Your task to perform on an android device: turn on the 24-hour format for clock Image 0: 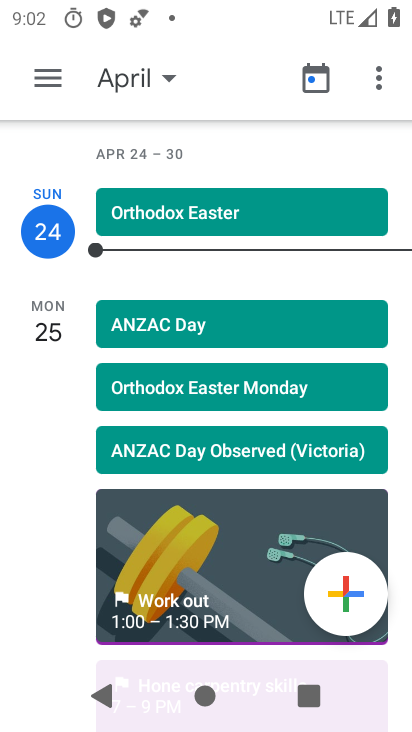
Step 0: press home button
Your task to perform on an android device: turn on the 24-hour format for clock Image 1: 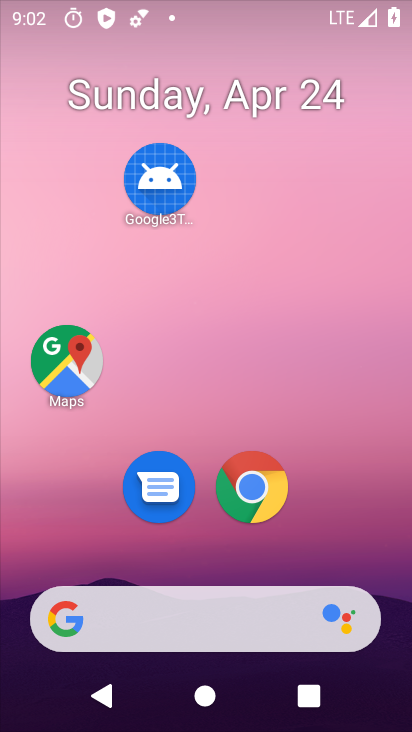
Step 1: drag from (299, 500) to (288, 70)
Your task to perform on an android device: turn on the 24-hour format for clock Image 2: 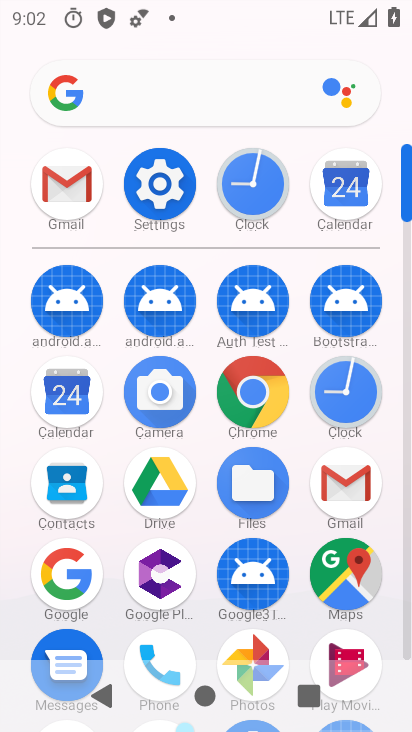
Step 2: click (265, 189)
Your task to perform on an android device: turn on the 24-hour format for clock Image 3: 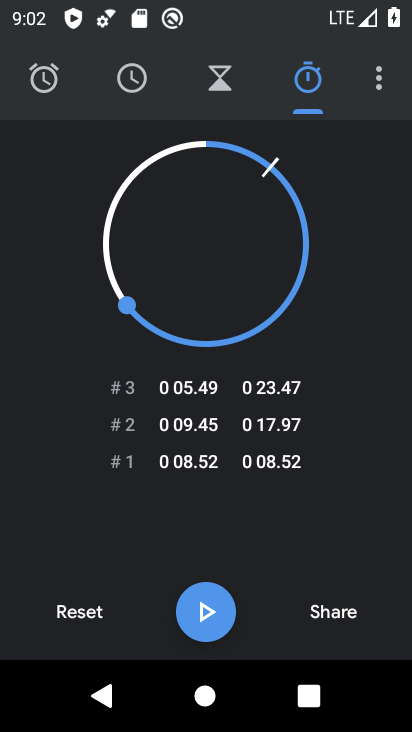
Step 3: click (380, 91)
Your task to perform on an android device: turn on the 24-hour format for clock Image 4: 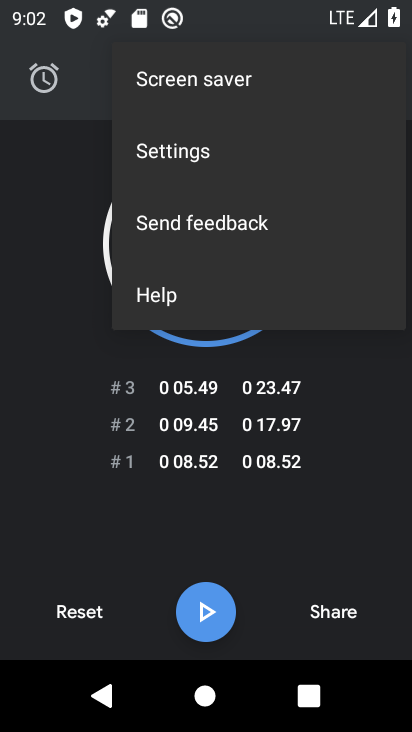
Step 4: click (201, 157)
Your task to perform on an android device: turn on the 24-hour format for clock Image 5: 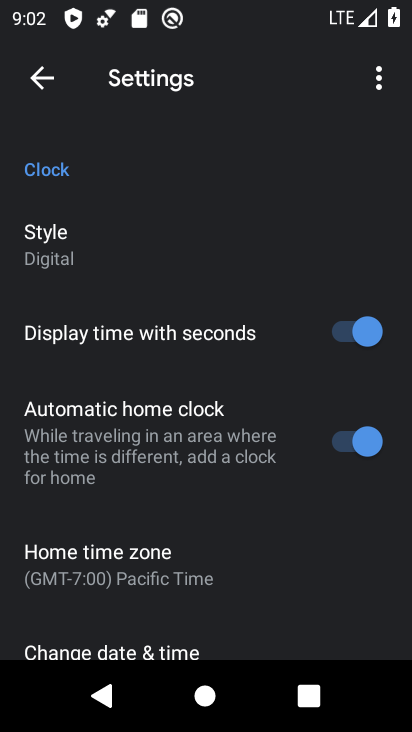
Step 5: drag from (219, 565) to (221, 287)
Your task to perform on an android device: turn on the 24-hour format for clock Image 6: 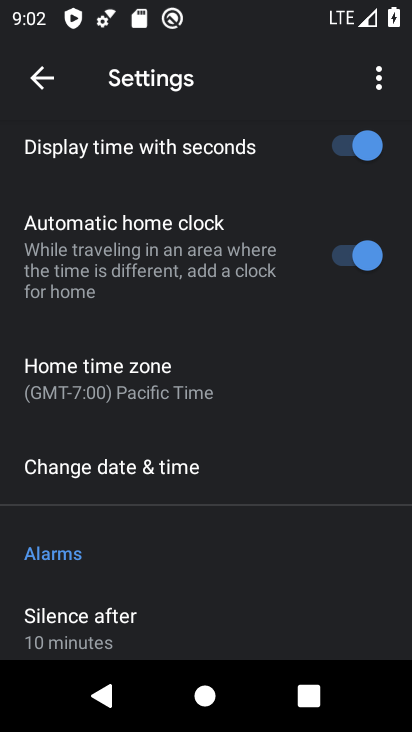
Step 6: click (133, 469)
Your task to perform on an android device: turn on the 24-hour format for clock Image 7: 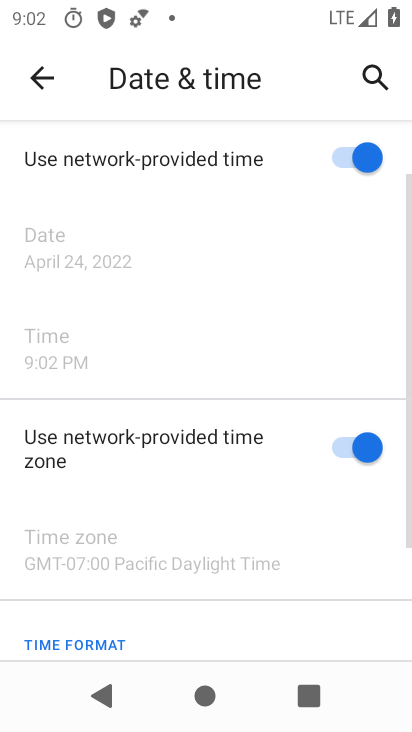
Step 7: drag from (145, 557) to (154, 350)
Your task to perform on an android device: turn on the 24-hour format for clock Image 8: 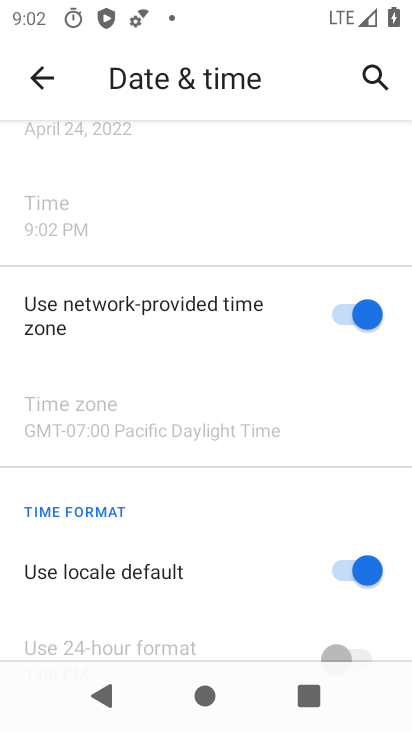
Step 8: drag from (120, 541) to (135, 398)
Your task to perform on an android device: turn on the 24-hour format for clock Image 9: 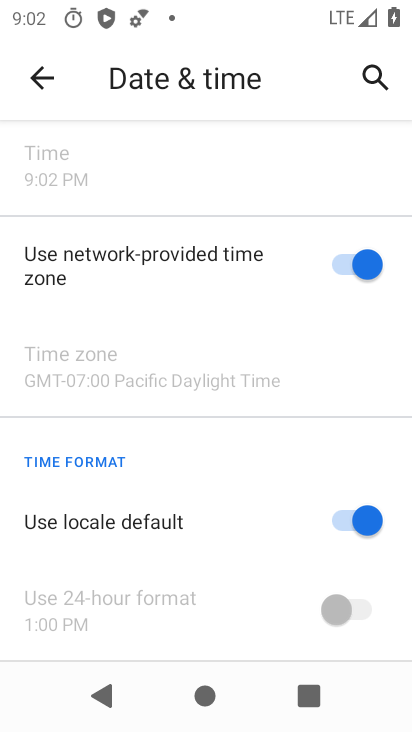
Step 9: click (357, 522)
Your task to perform on an android device: turn on the 24-hour format for clock Image 10: 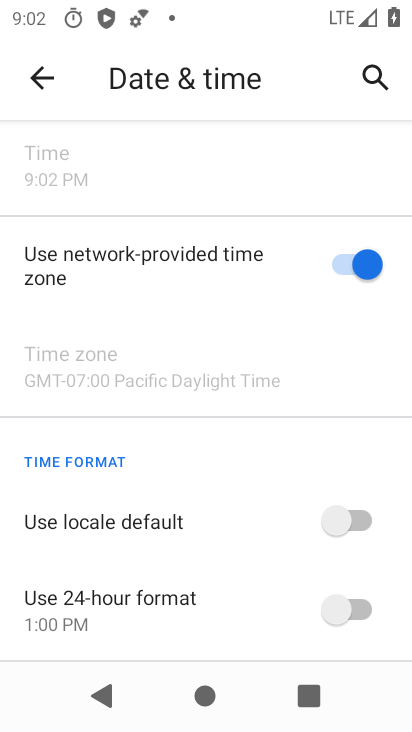
Step 10: click (348, 604)
Your task to perform on an android device: turn on the 24-hour format for clock Image 11: 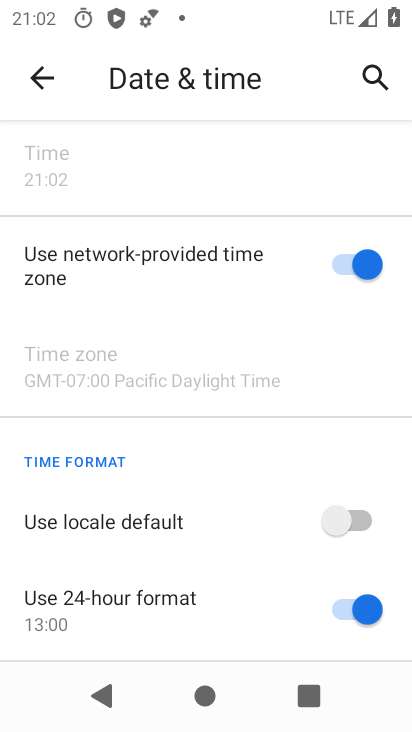
Step 11: task complete